Your task to perform on an android device: find photos in the google photos app Image 0: 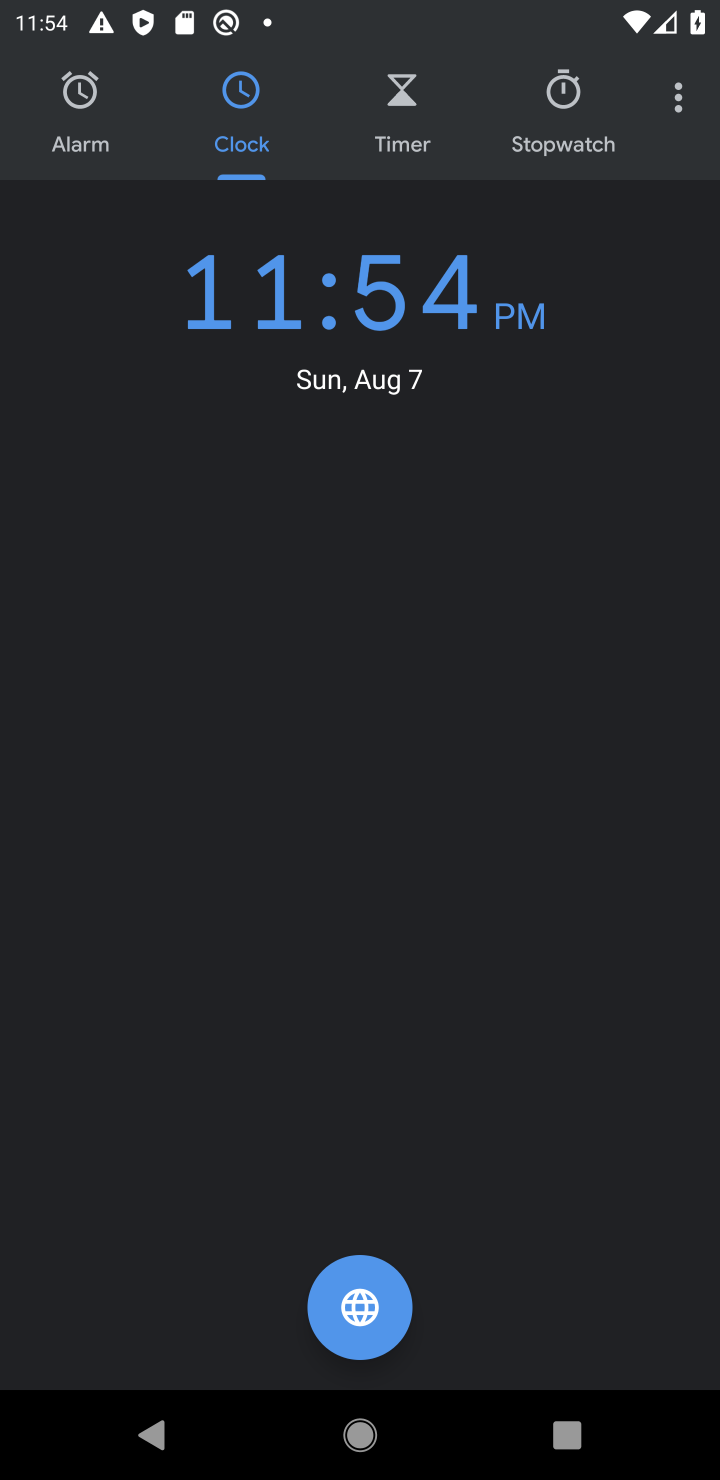
Step 0: press home button
Your task to perform on an android device: find photos in the google photos app Image 1: 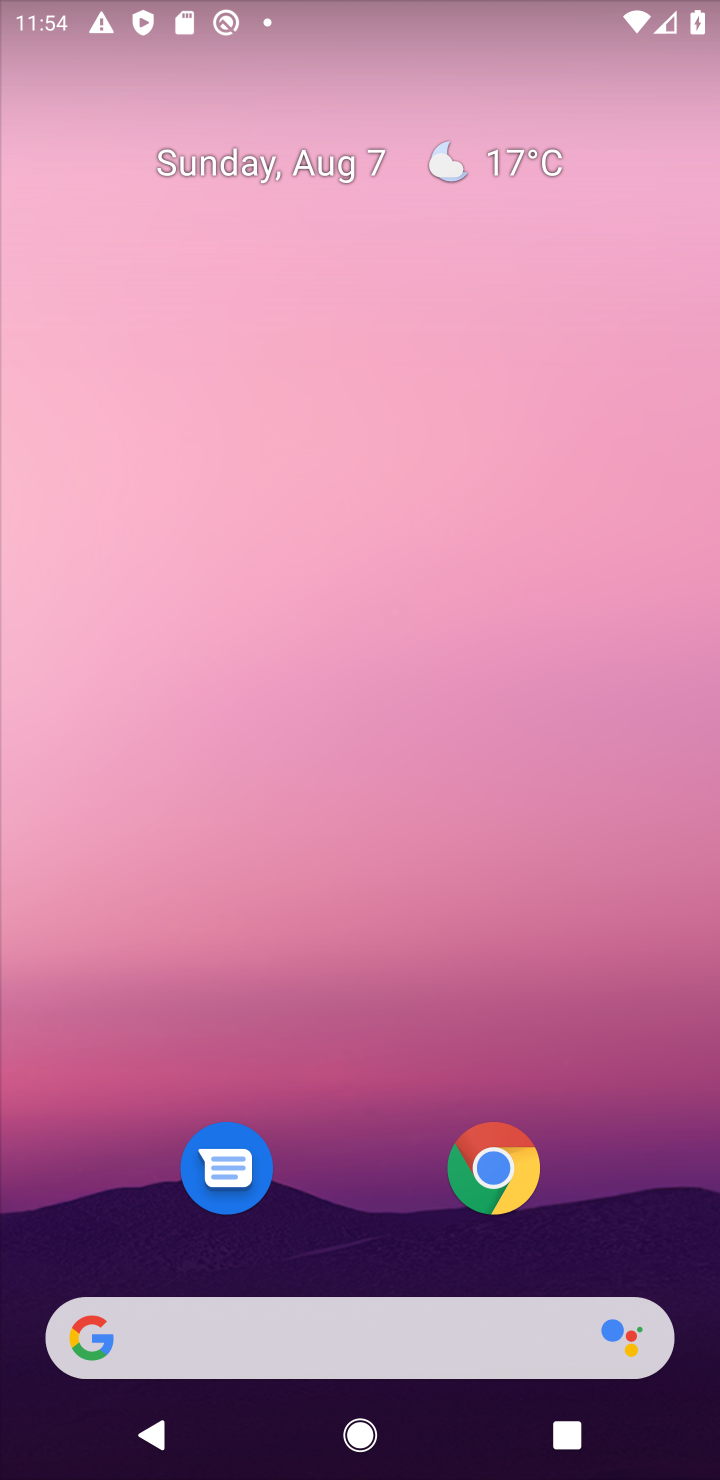
Step 1: drag from (48, 1433) to (225, 428)
Your task to perform on an android device: find photos in the google photos app Image 2: 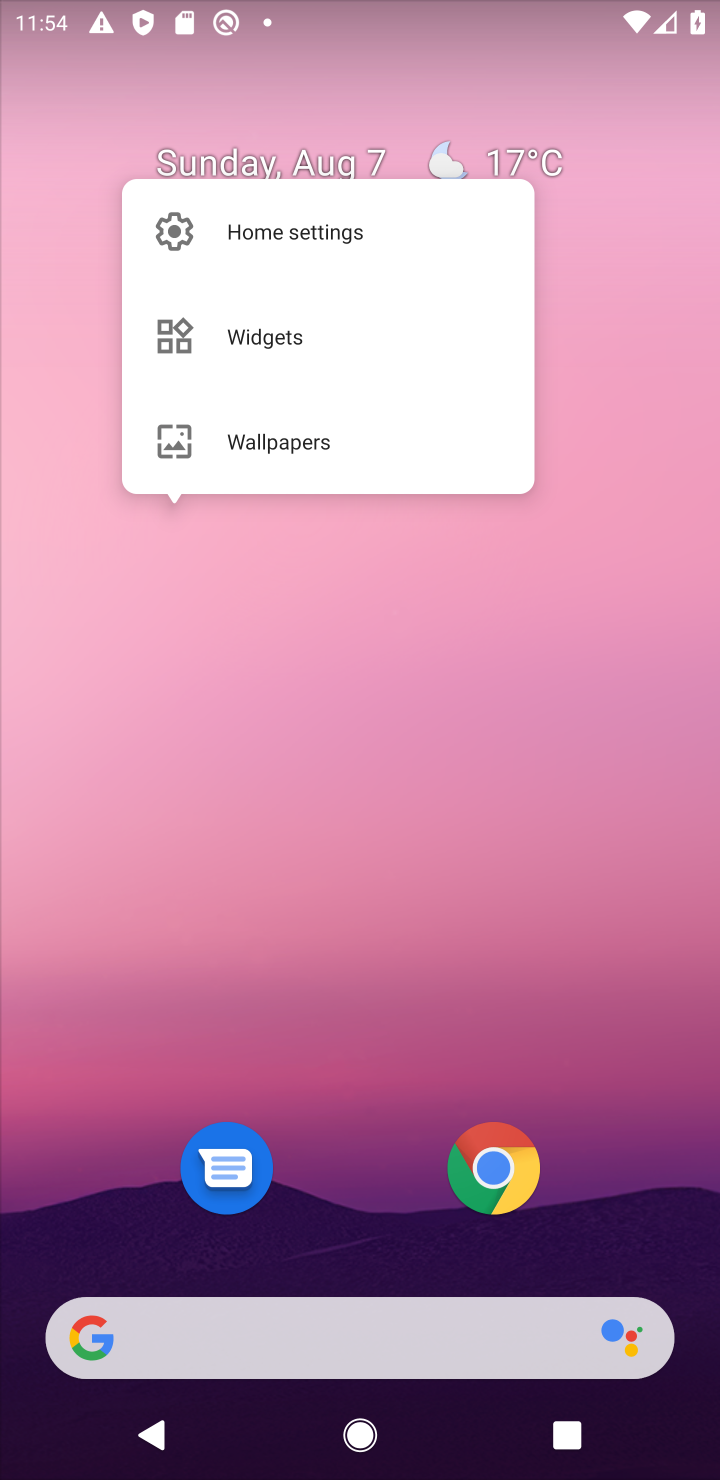
Step 2: click (410, 973)
Your task to perform on an android device: find photos in the google photos app Image 3: 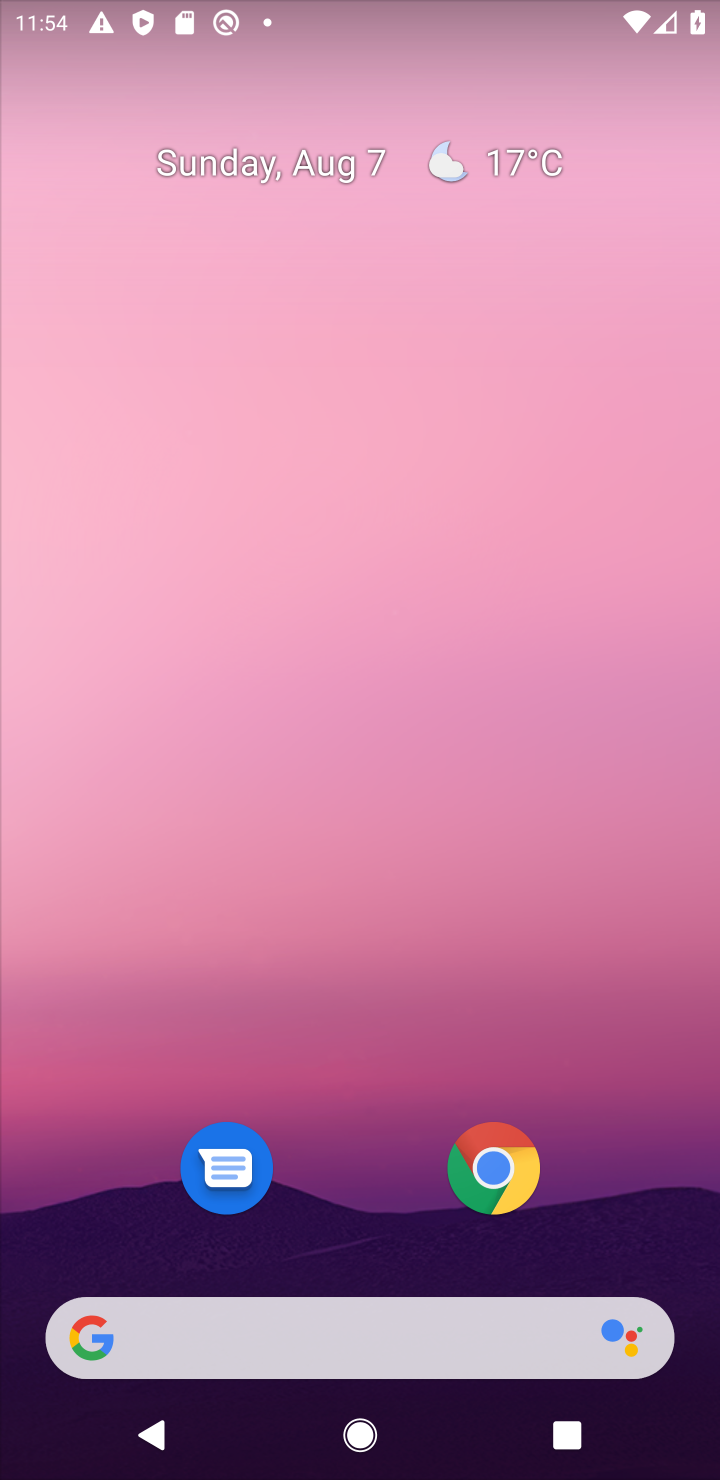
Step 3: click (90, 1409)
Your task to perform on an android device: find photos in the google photos app Image 4: 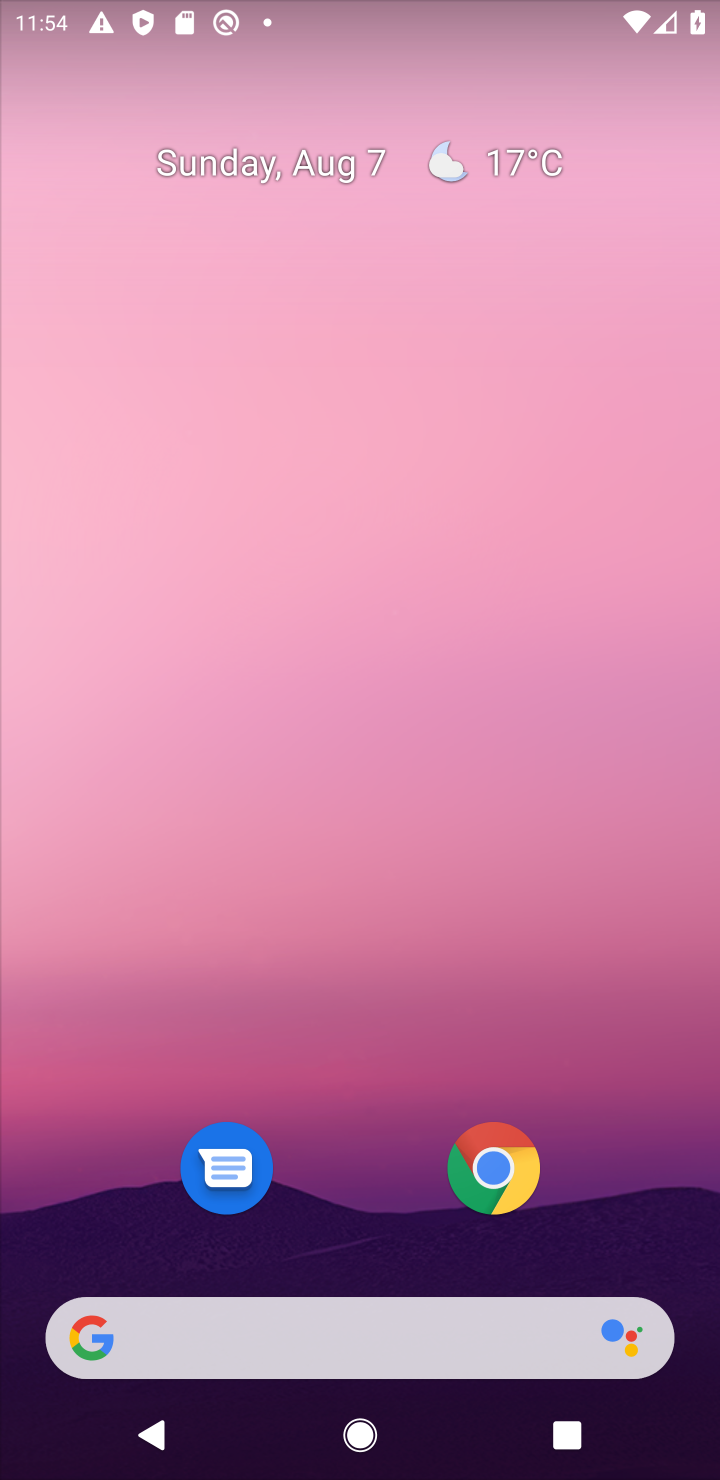
Step 4: drag from (288, 908) to (462, 409)
Your task to perform on an android device: find photos in the google photos app Image 5: 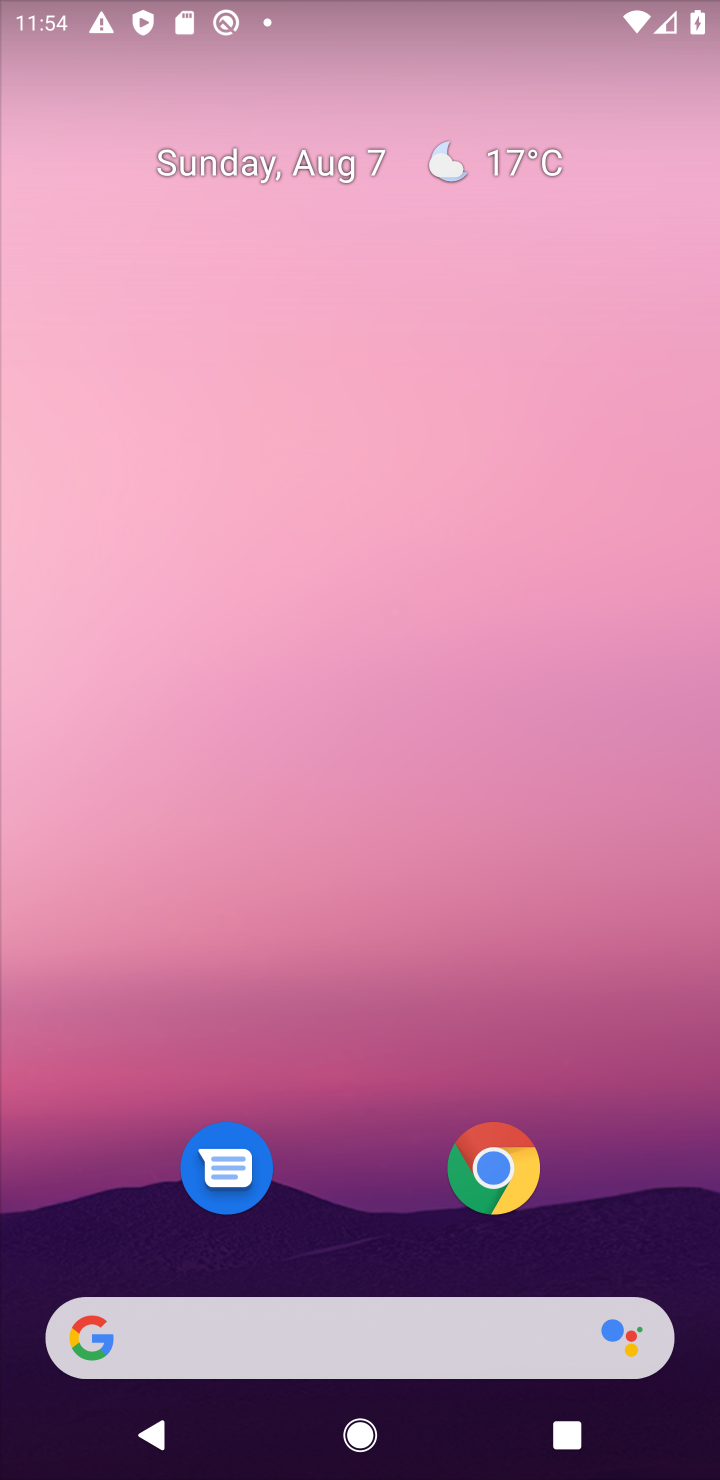
Step 5: click (64, 1424)
Your task to perform on an android device: find photos in the google photos app Image 6: 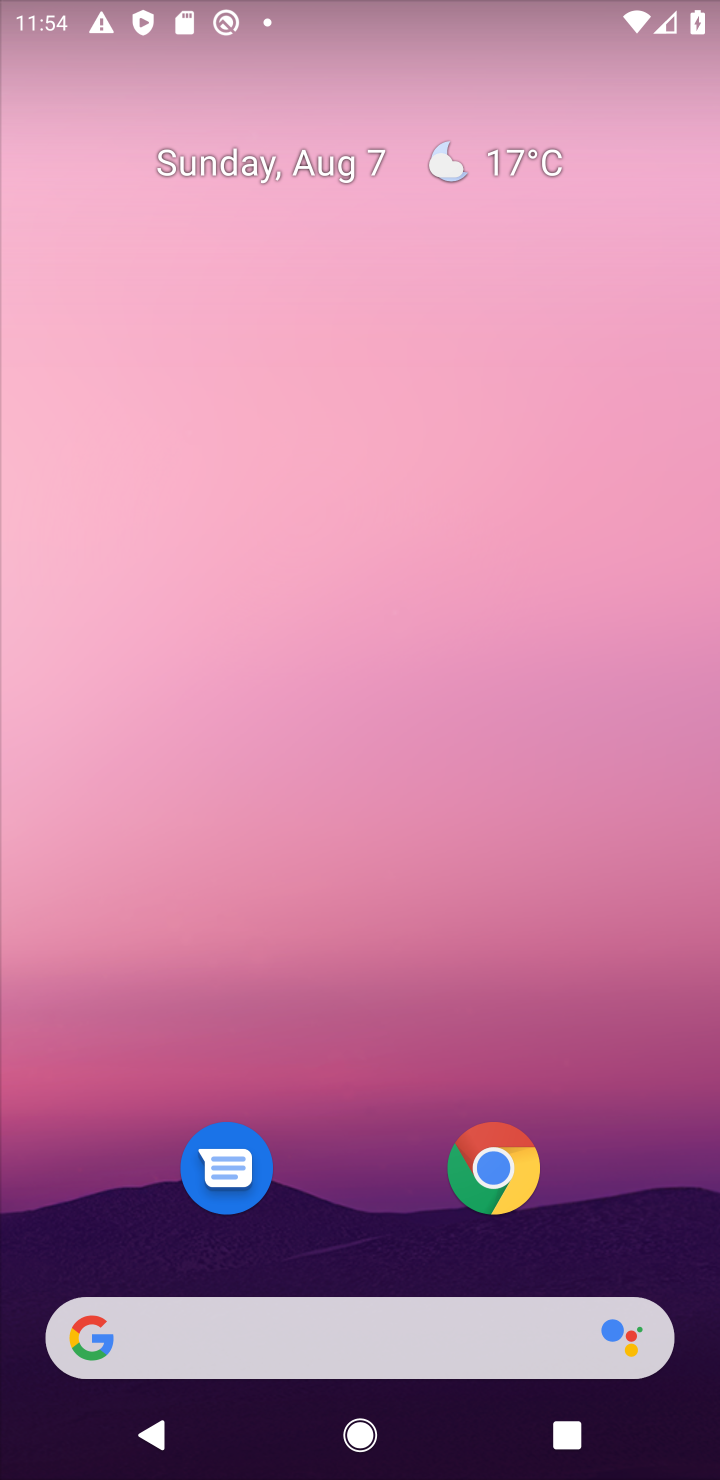
Step 6: drag from (64, 1424) to (431, 506)
Your task to perform on an android device: find photos in the google photos app Image 7: 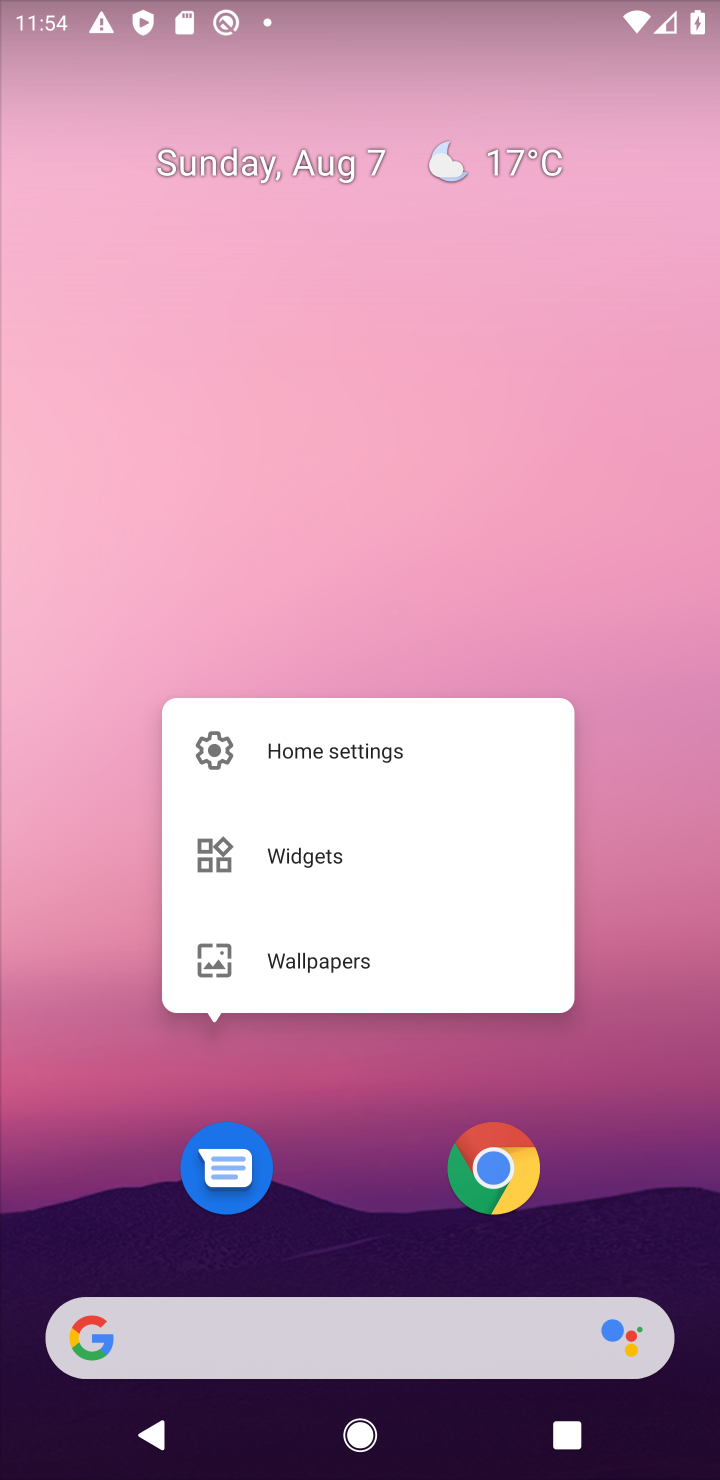
Step 7: click (82, 1424)
Your task to perform on an android device: find photos in the google photos app Image 8: 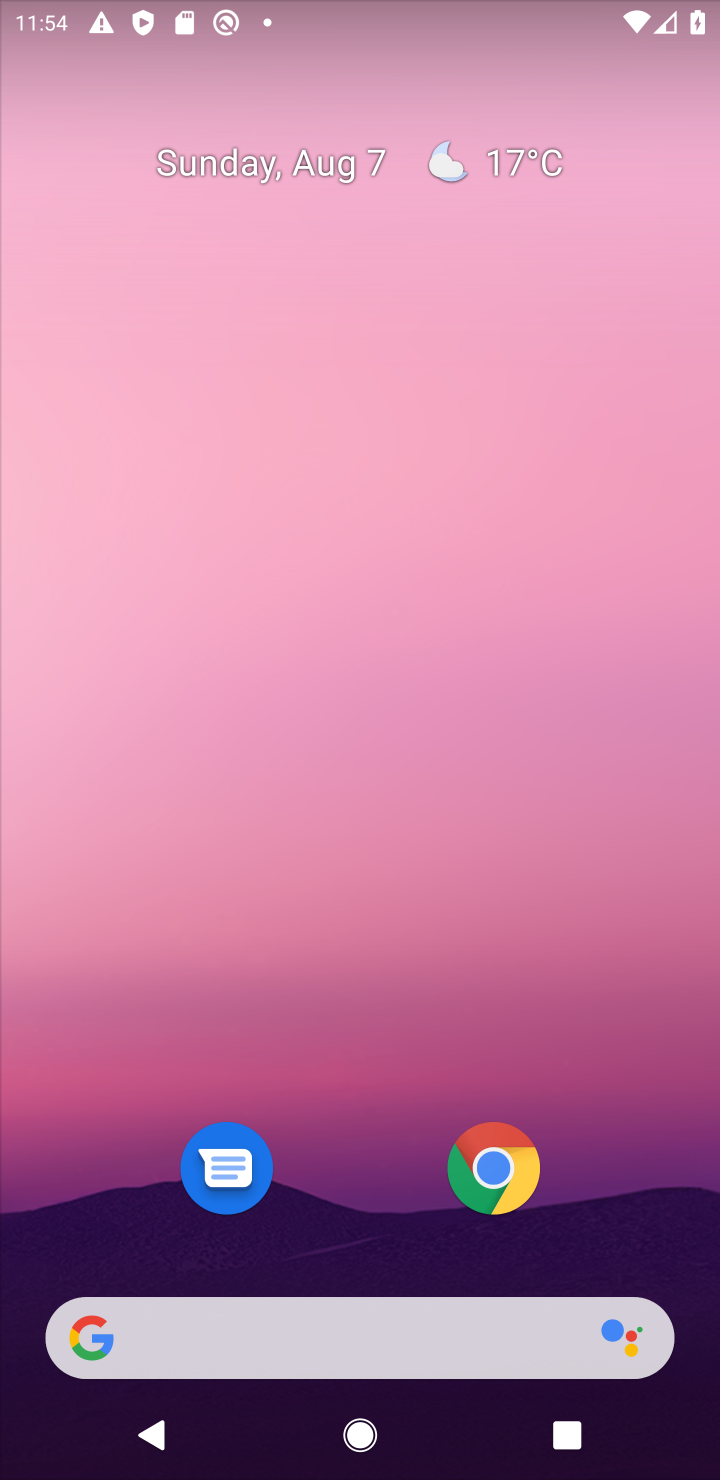
Step 8: drag from (82, 1424) to (369, 556)
Your task to perform on an android device: find photos in the google photos app Image 9: 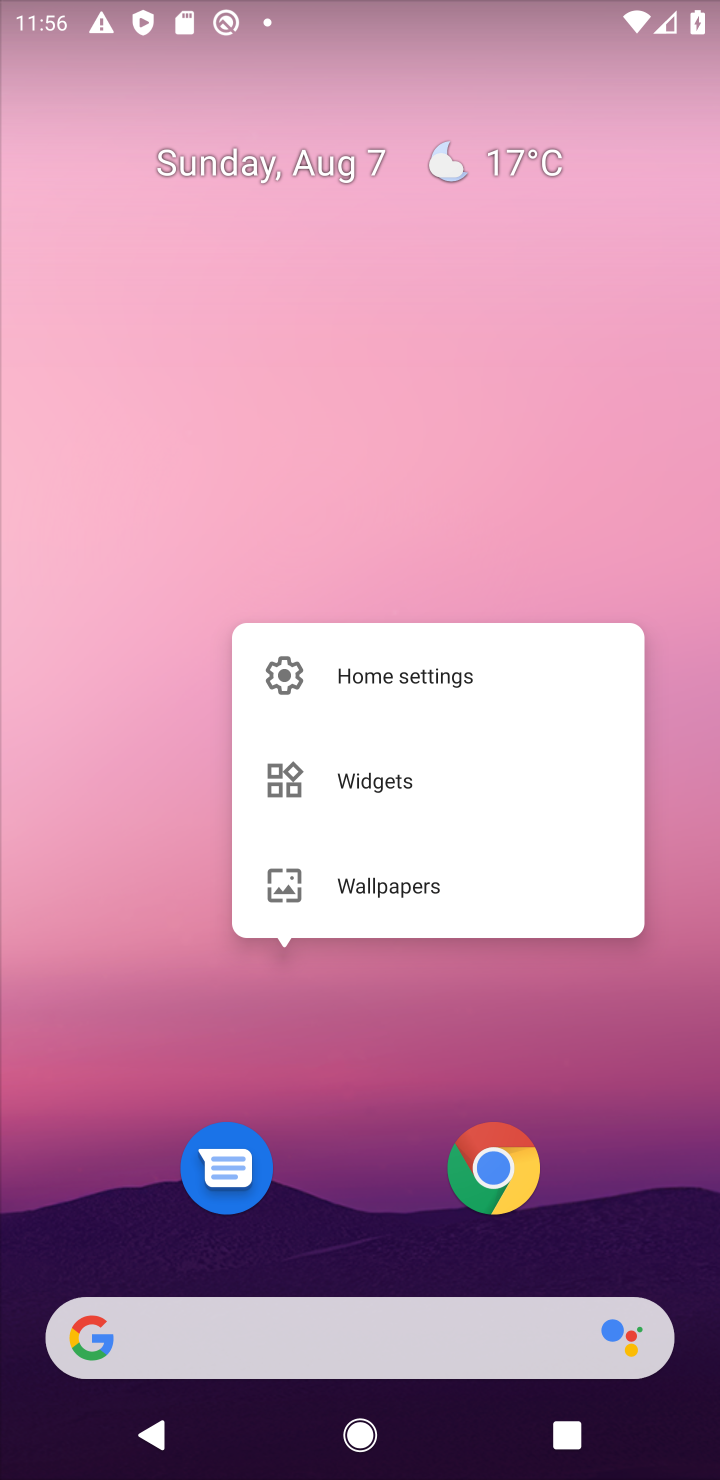
Step 9: drag from (88, 1370) to (333, 681)
Your task to perform on an android device: find photos in the google photos app Image 10: 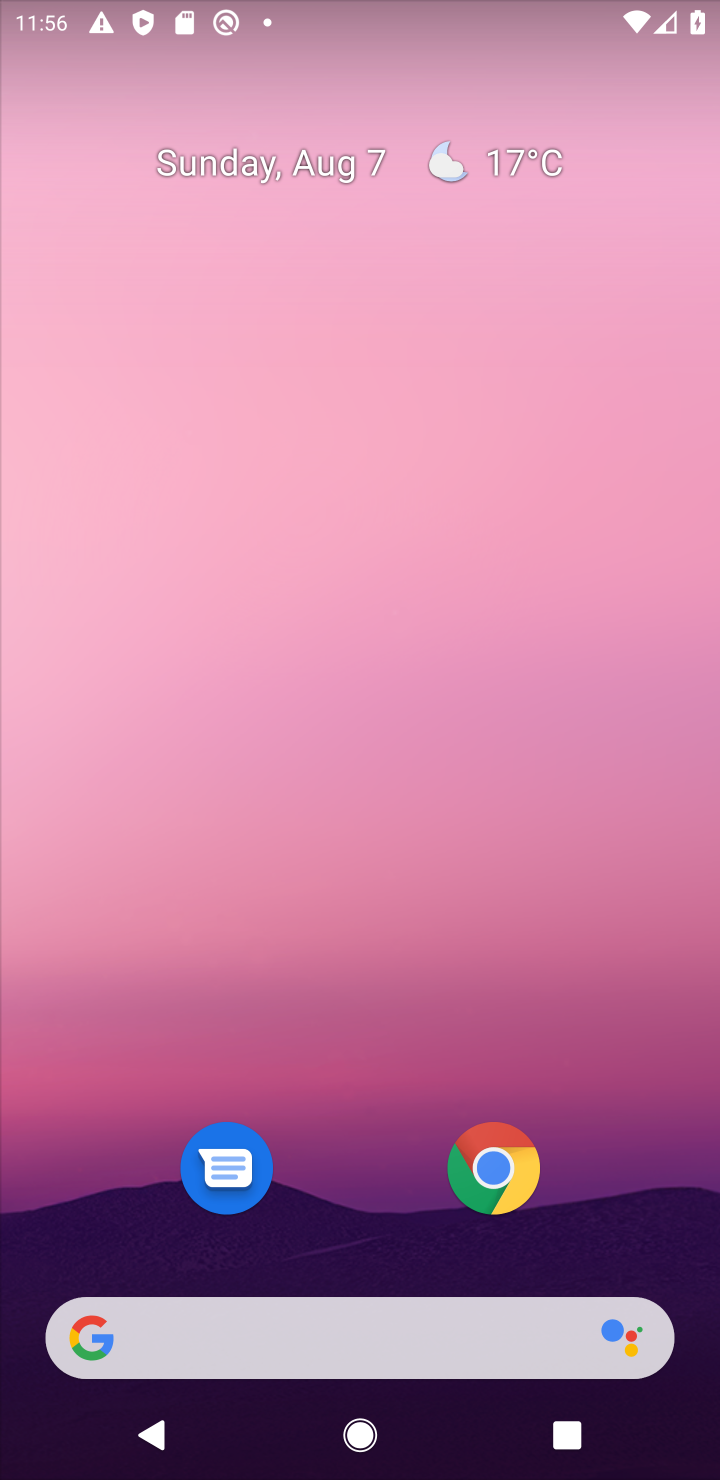
Step 10: drag from (76, 1427) to (80, 394)
Your task to perform on an android device: find photos in the google photos app Image 11: 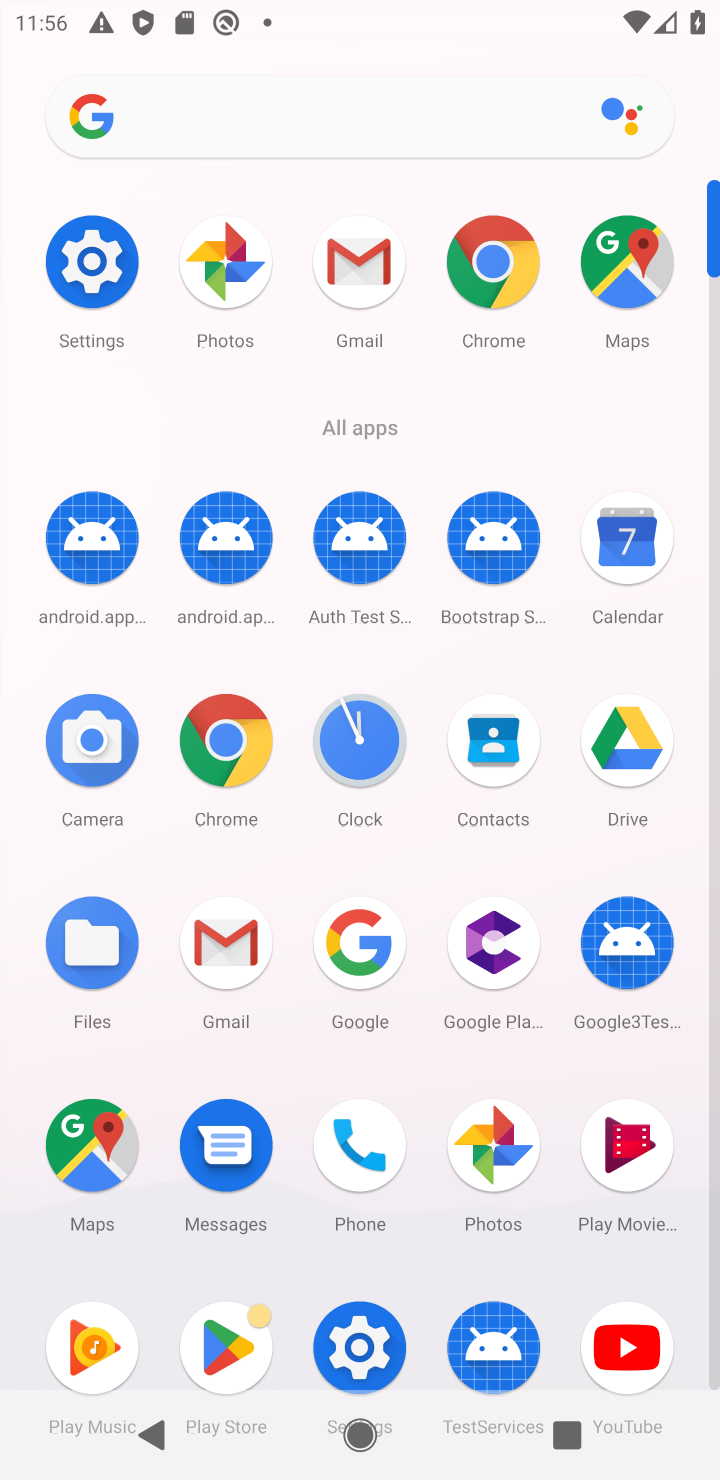
Step 11: click (485, 1154)
Your task to perform on an android device: find photos in the google photos app Image 12: 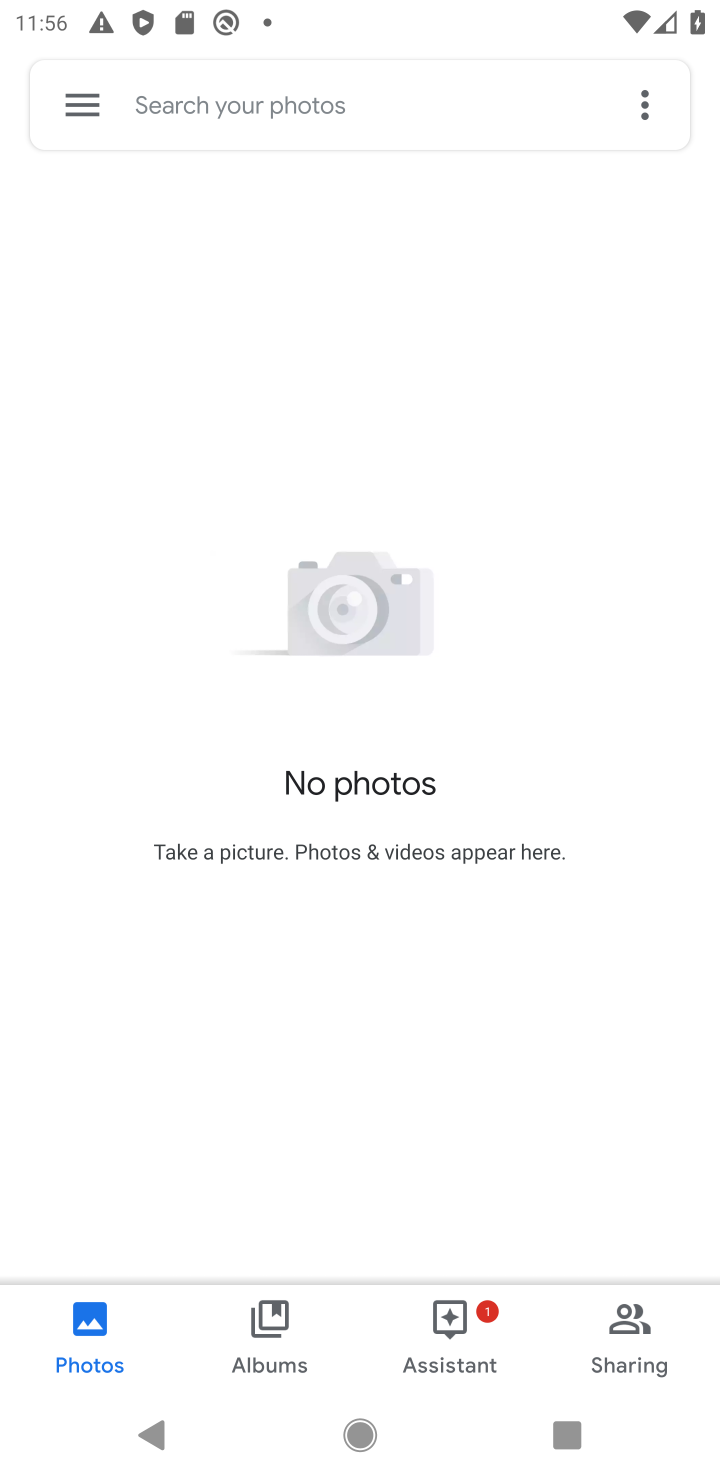
Step 12: task complete